Your task to perform on an android device: uninstall "Facebook" Image 0: 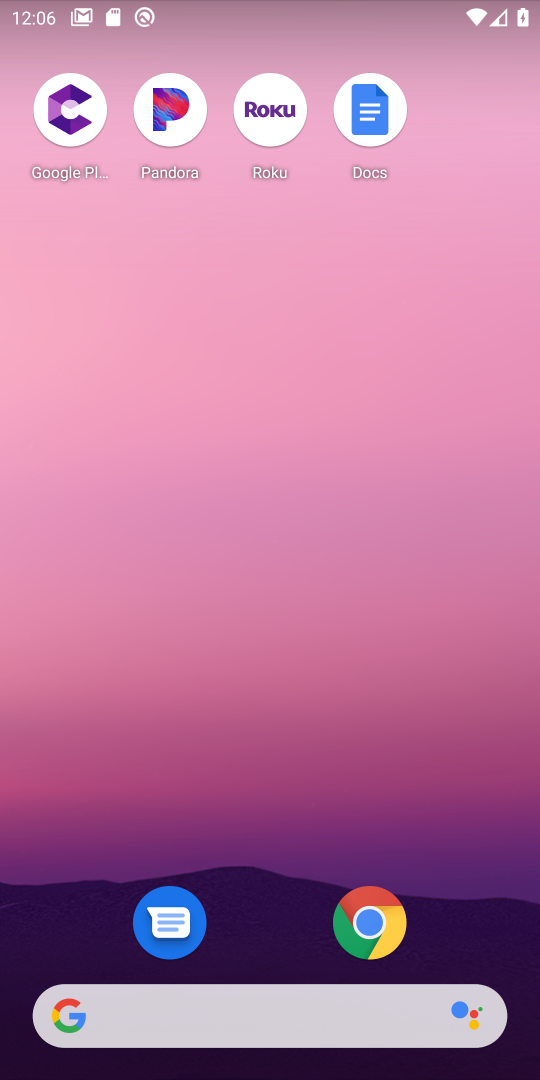
Step 0: drag from (278, 830) to (323, 107)
Your task to perform on an android device: uninstall "Facebook" Image 1: 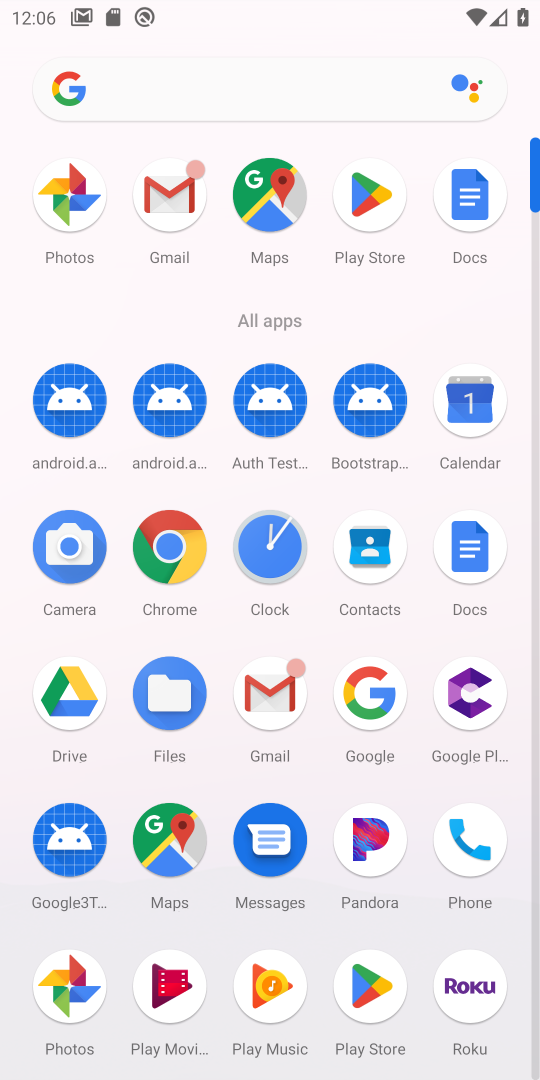
Step 1: click (358, 161)
Your task to perform on an android device: uninstall "Facebook" Image 2: 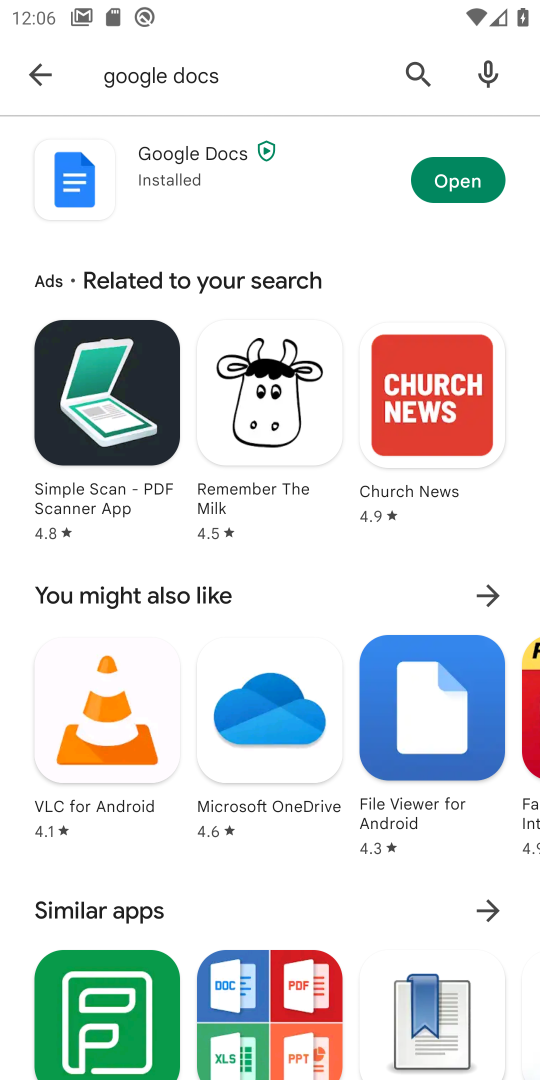
Step 2: click (410, 82)
Your task to perform on an android device: uninstall "Facebook" Image 3: 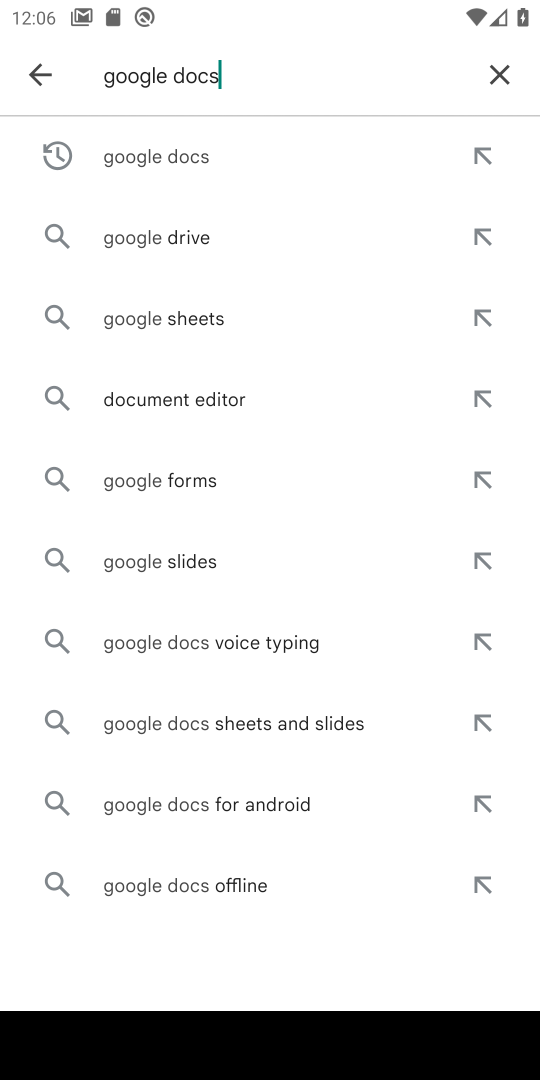
Step 3: click (483, 80)
Your task to perform on an android device: uninstall "Facebook" Image 4: 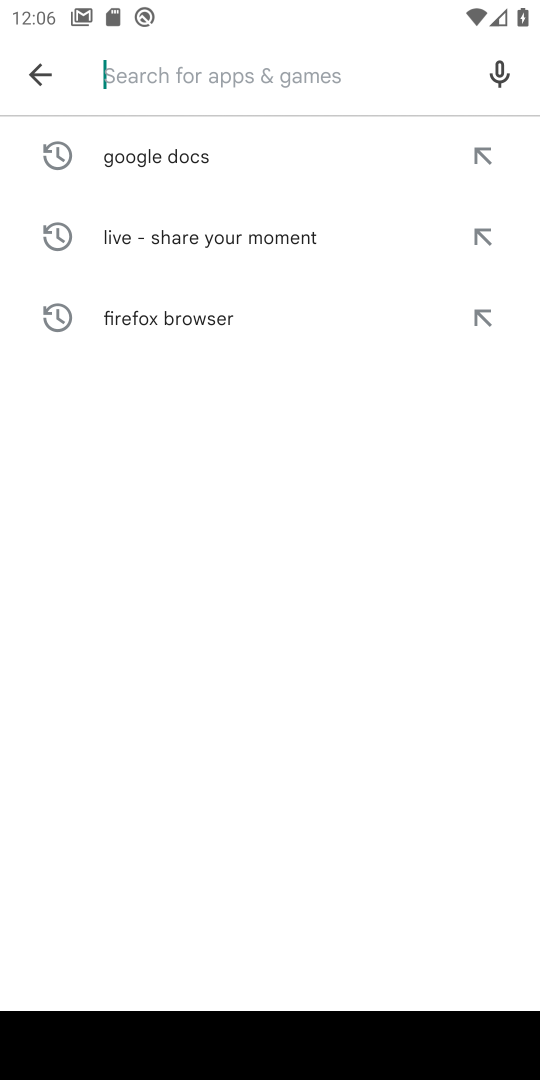
Step 4: type "Facebook"
Your task to perform on an android device: uninstall "Facebook" Image 5: 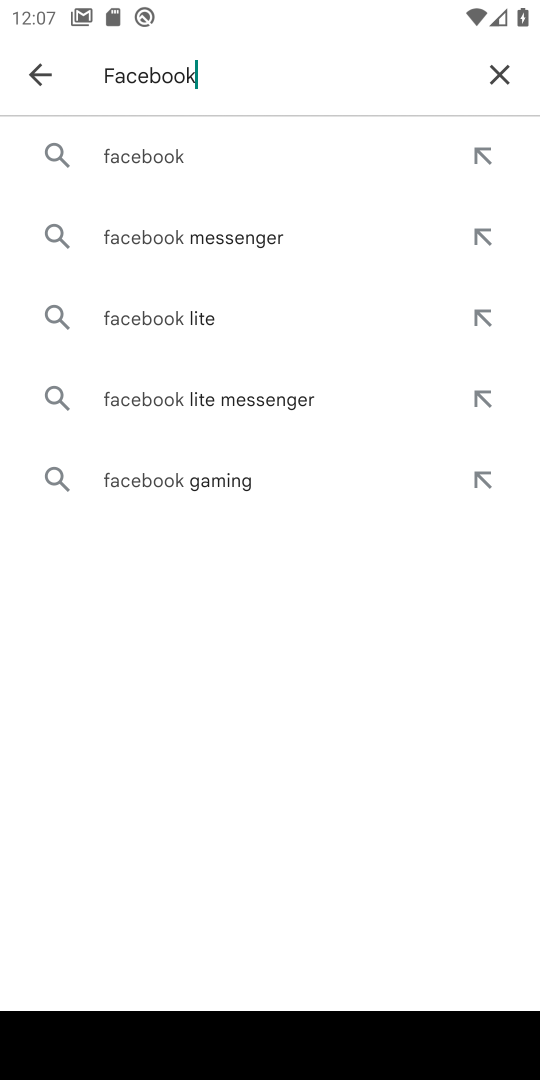
Step 5: click (236, 153)
Your task to perform on an android device: uninstall "Facebook" Image 6: 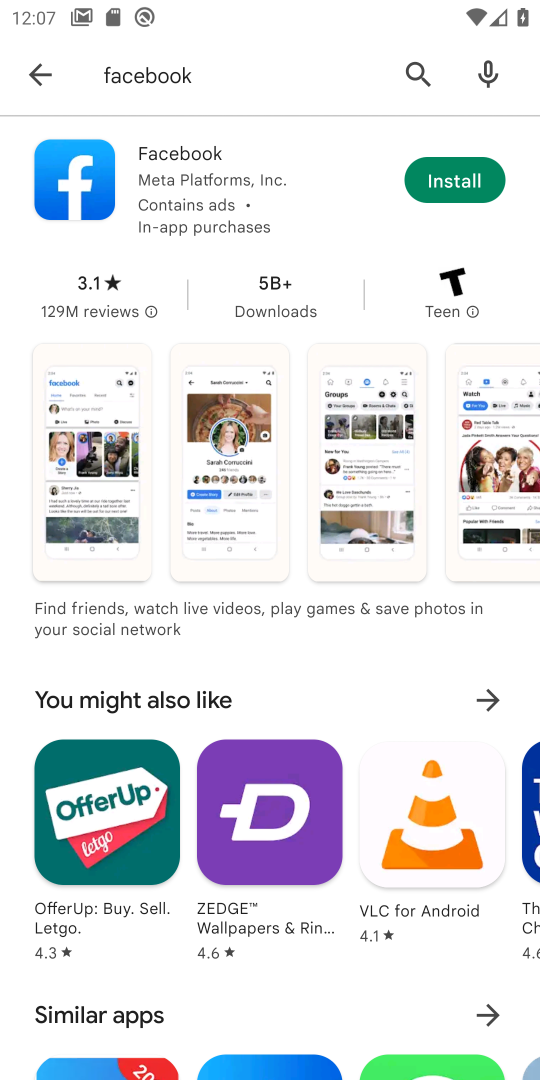
Step 6: click (196, 194)
Your task to perform on an android device: uninstall "Facebook" Image 7: 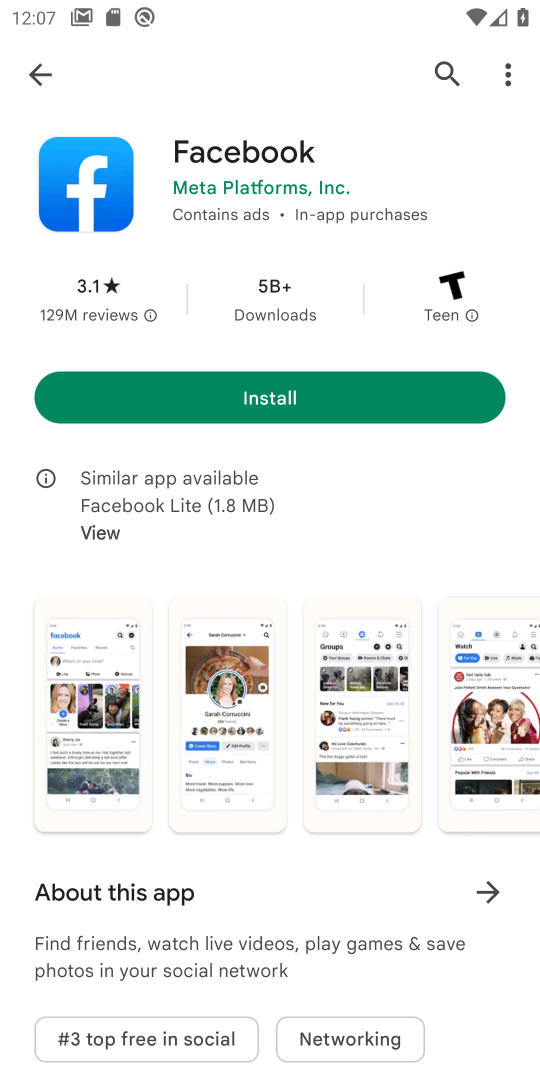
Step 7: task complete